Your task to perform on an android device: change your default location settings in chrome Image 0: 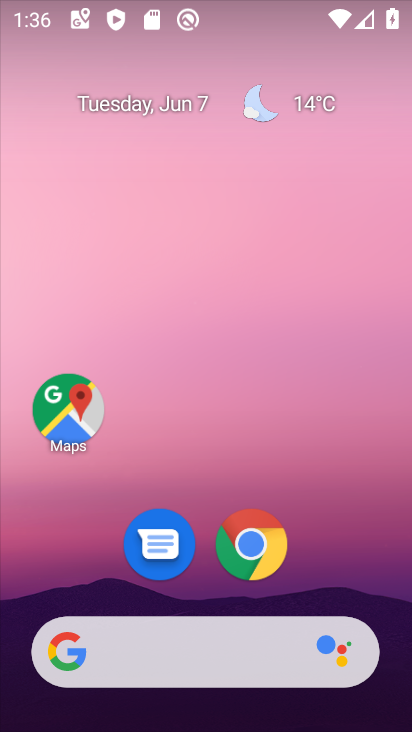
Step 0: drag from (383, 602) to (274, 257)
Your task to perform on an android device: change your default location settings in chrome Image 1: 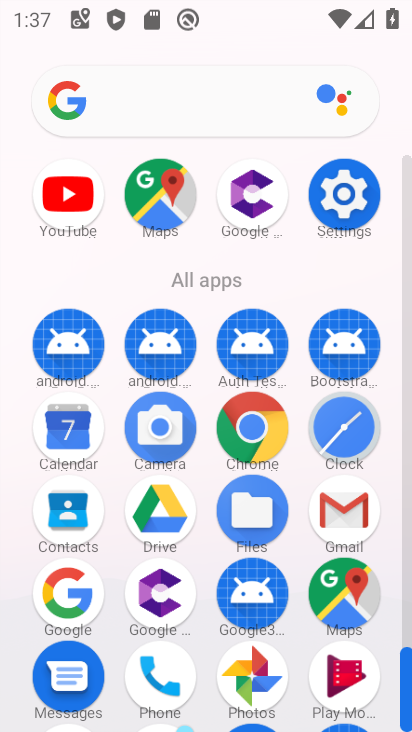
Step 1: click (249, 441)
Your task to perform on an android device: change your default location settings in chrome Image 2: 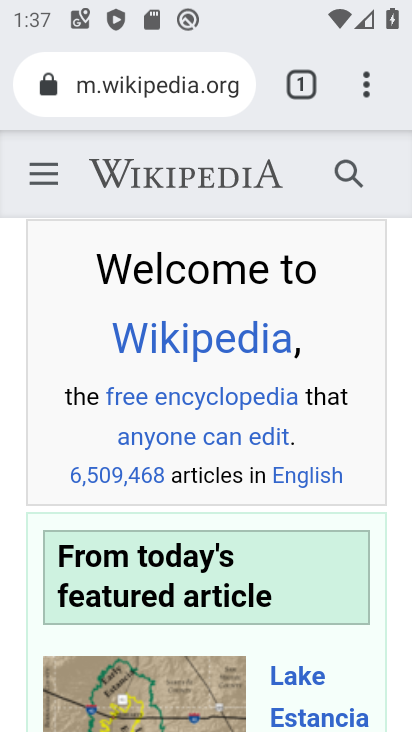
Step 2: click (366, 72)
Your task to perform on an android device: change your default location settings in chrome Image 3: 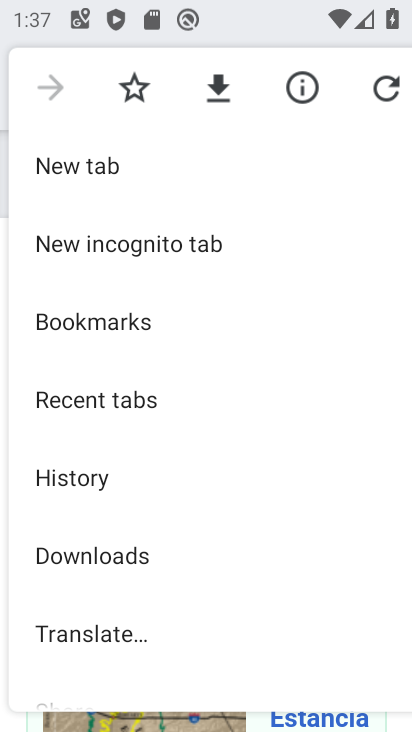
Step 3: drag from (253, 626) to (113, 46)
Your task to perform on an android device: change your default location settings in chrome Image 4: 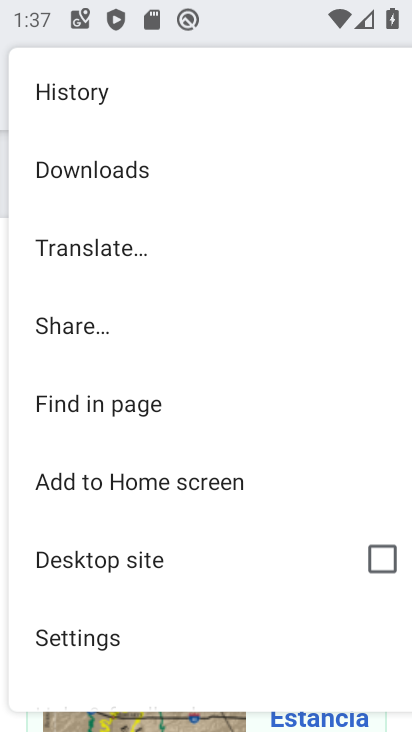
Step 4: click (119, 634)
Your task to perform on an android device: change your default location settings in chrome Image 5: 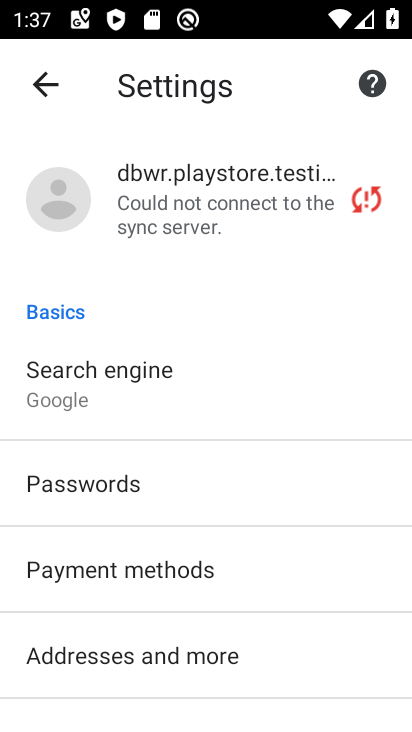
Step 5: click (150, 407)
Your task to perform on an android device: change your default location settings in chrome Image 6: 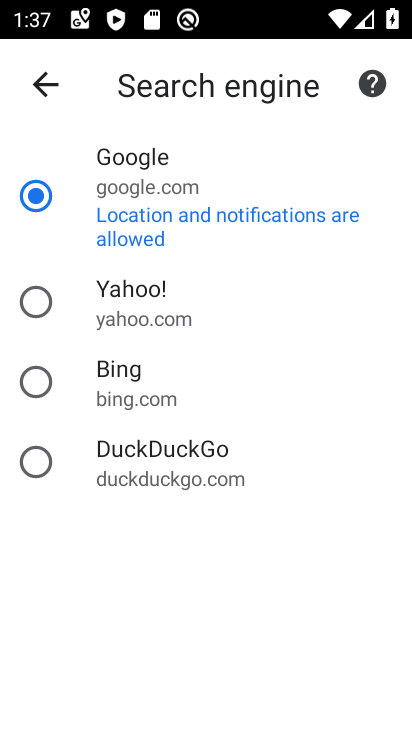
Step 6: click (50, 72)
Your task to perform on an android device: change your default location settings in chrome Image 7: 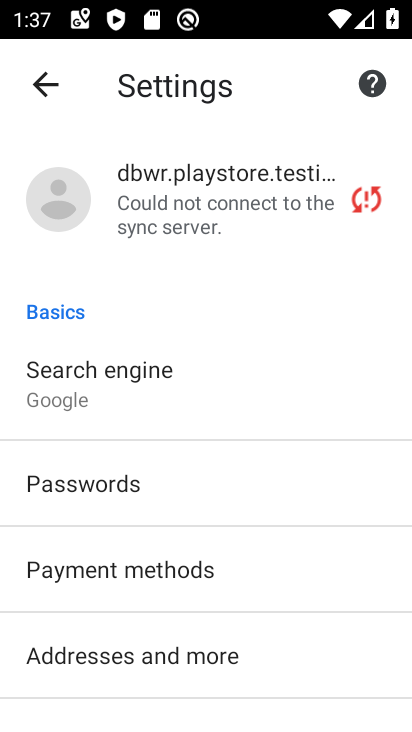
Step 7: drag from (265, 657) to (181, 108)
Your task to perform on an android device: change your default location settings in chrome Image 8: 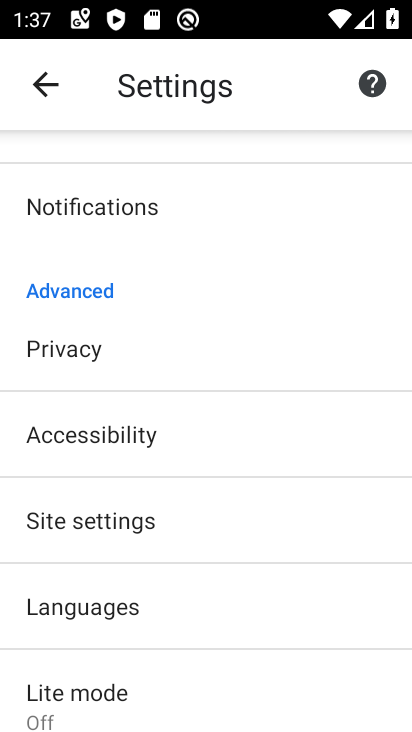
Step 8: click (208, 509)
Your task to perform on an android device: change your default location settings in chrome Image 9: 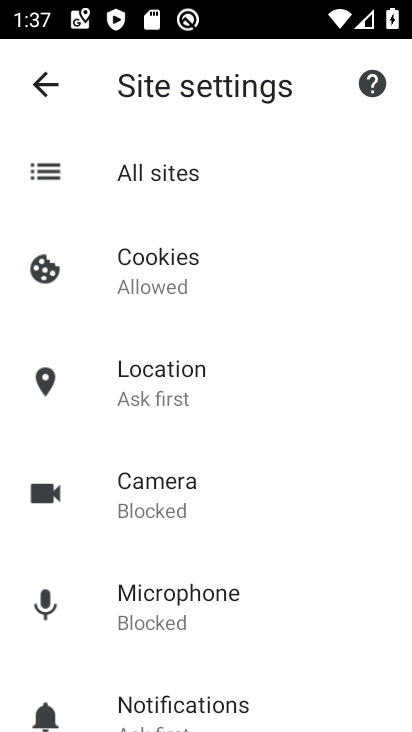
Step 9: click (247, 372)
Your task to perform on an android device: change your default location settings in chrome Image 10: 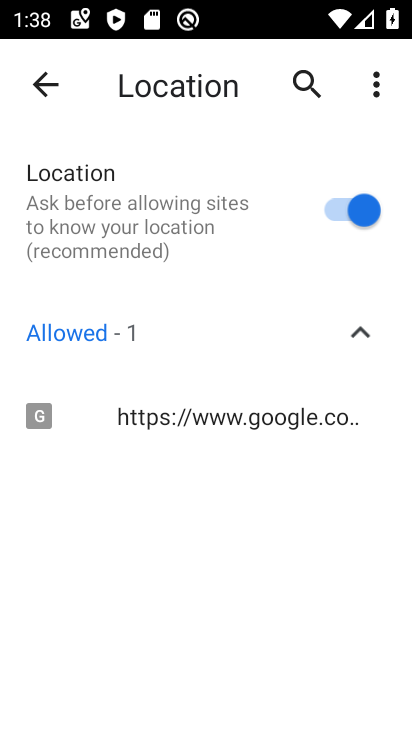
Step 10: task complete